Your task to perform on an android device: Show me the alarms in the clock app Image 0: 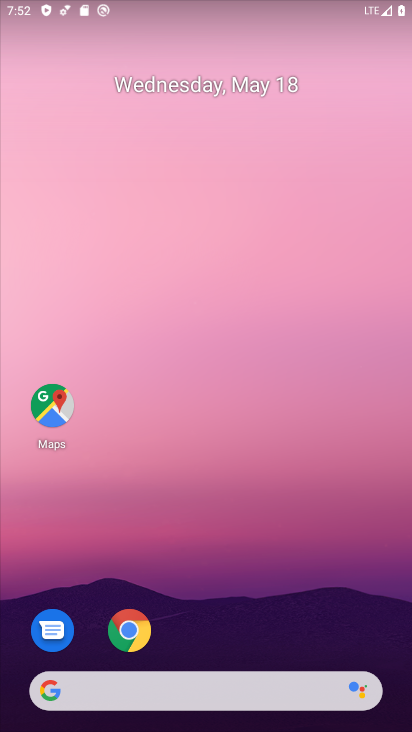
Step 0: drag from (258, 572) to (186, 25)
Your task to perform on an android device: Show me the alarms in the clock app Image 1: 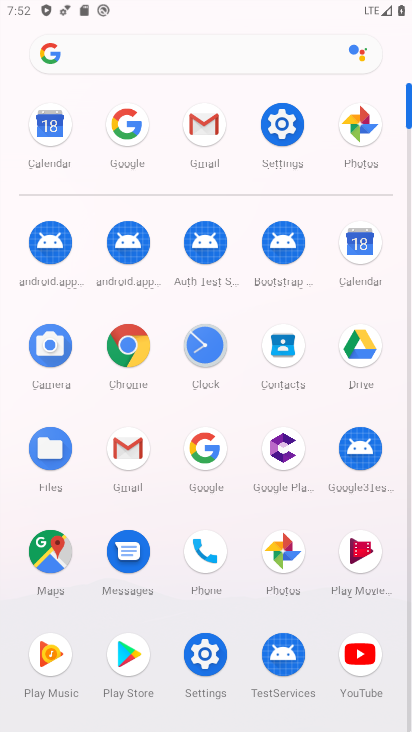
Step 1: click (197, 341)
Your task to perform on an android device: Show me the alarms in the clock app Image 2: 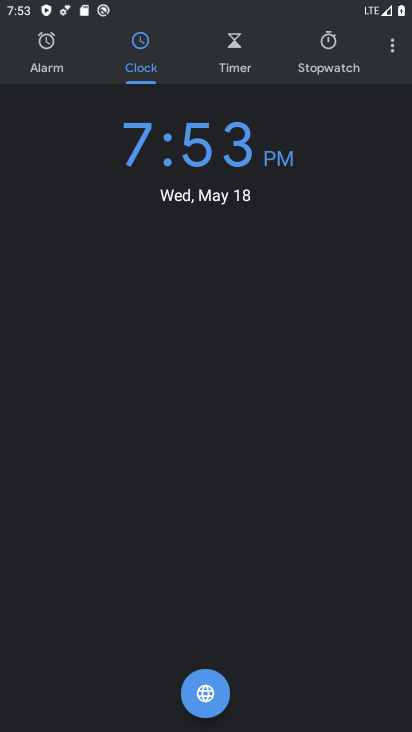
Step 2: click (34, 52)
Your task to perform on an android device: Show me the alarms in the clock app Image 3: 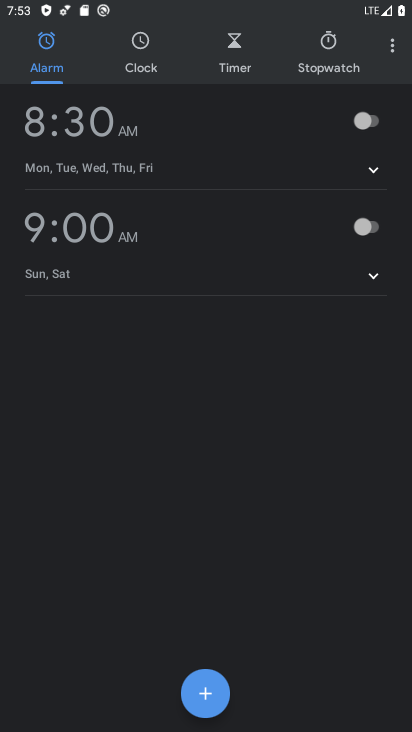
Step 3: task complete